Your task to perform on an android device: What's on my calendar today? Image 0: 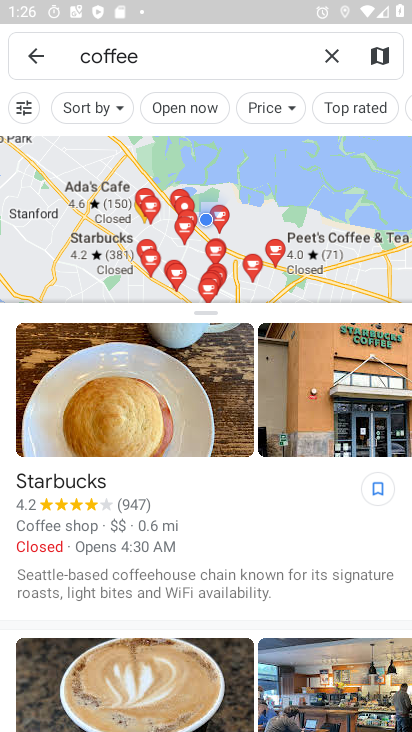
Step 0: press home button
Your task to perform on an android device: What's on my calendar today? Image 1: 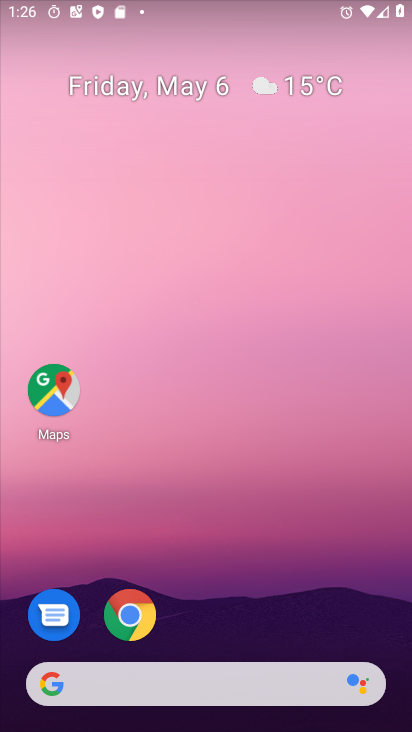
Step 1: drag from (263, 533) to (221, 29)
Your task to perform on an android device: What's on my calendar today? Image 2: 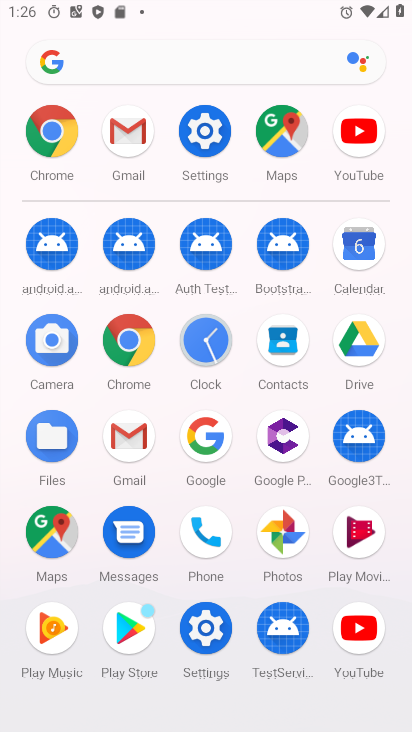
Step 2: click (354, 247)
Your task to perform on an android device: What's on my calendar today? Image 3: 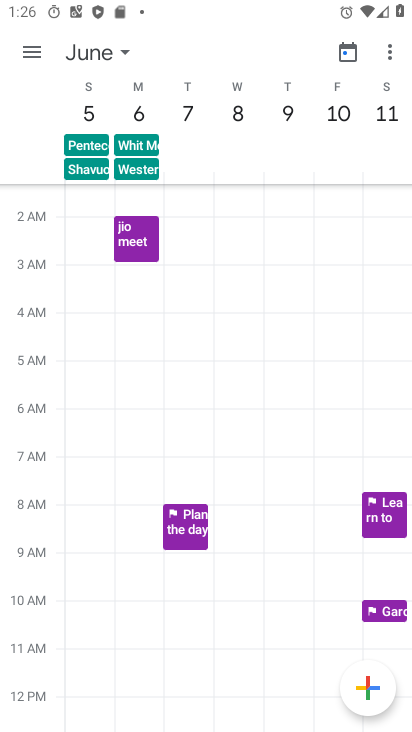
Step 3: drag from (96, 358) to (401, 315)
Your task to perform on an android device: What's on my calendar today? Image 4: 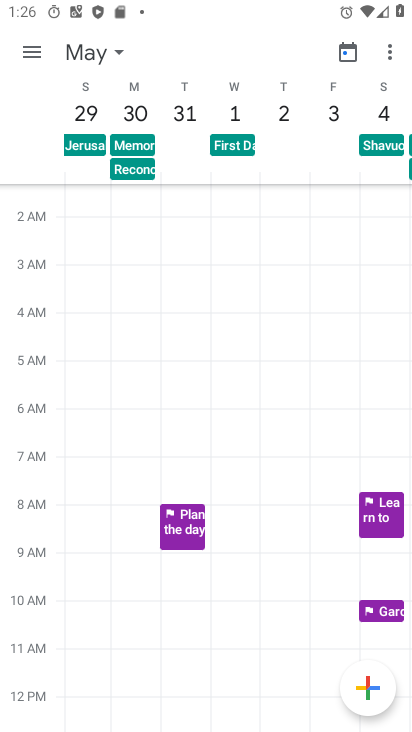
Step 4: drag from (89, 345) to (411, 323)
Your task to perform on an android device: What's on my calendar today? Image 5: 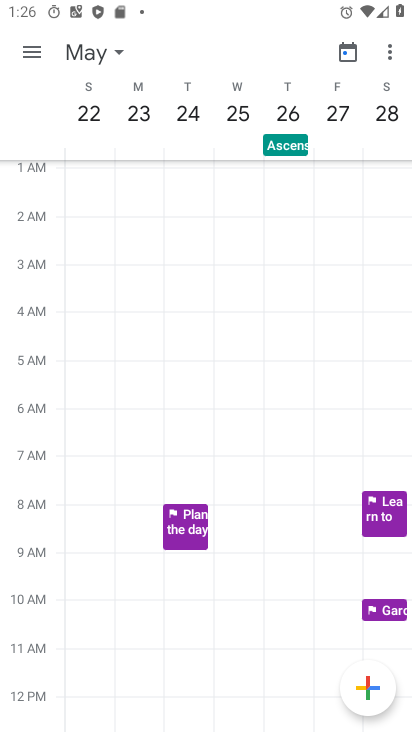
Step 5: drag from (118, 354) to (406, 351)
Your task to perform on an android device: What's on my calendar today? Image 6: 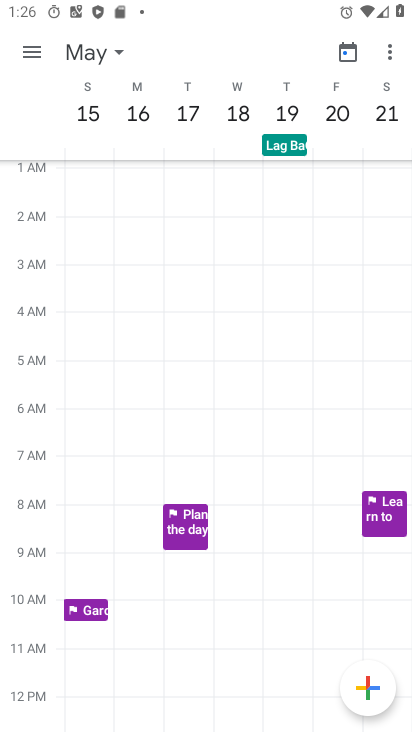
Step 6: drag from (88, 363) to (402, 368)
Your task to perform on an android device: What's on my calendar today? Image 7: 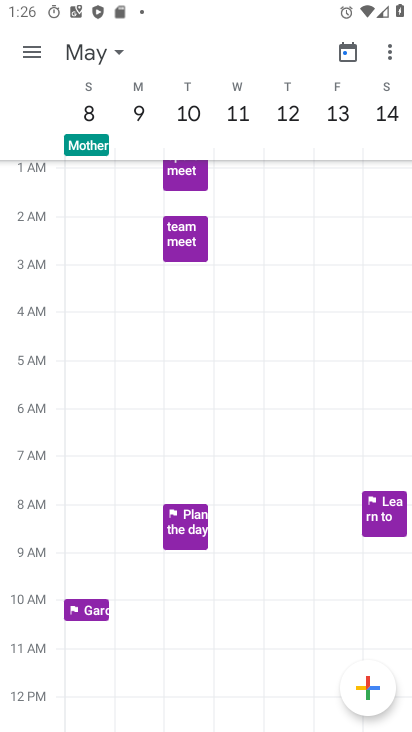
Step 7: drag from (118, 350) to (408, 362)
Your task to perform on an android device: What's on my calendar today? Image 8: 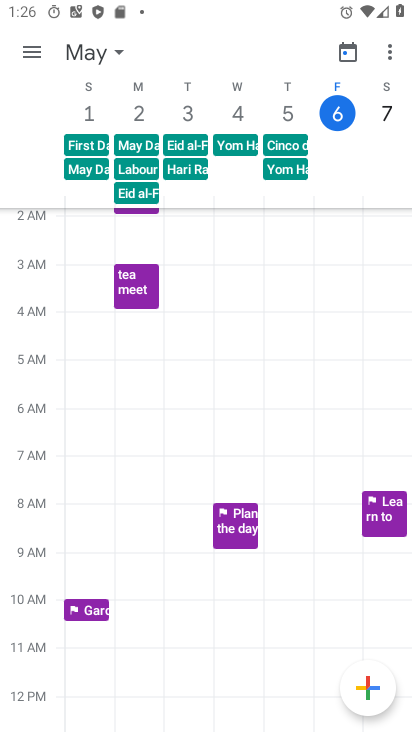
Step 8: click (331, 109)
Your task to perform on an android device: What's on my calendar today? Image 9: 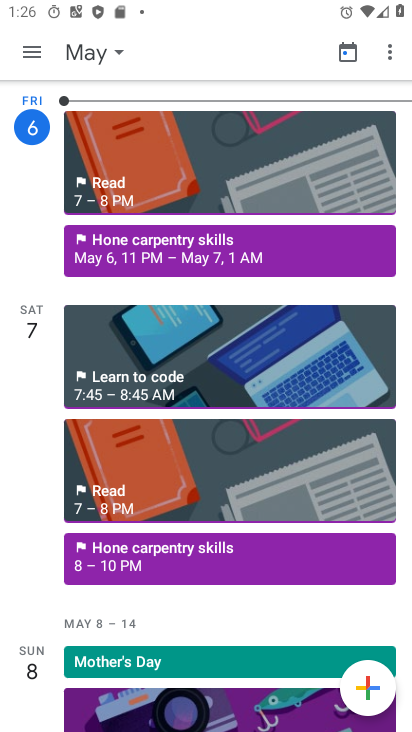
Step 9: task complete